Your task to perform on an android device: turn off location history Image 0: 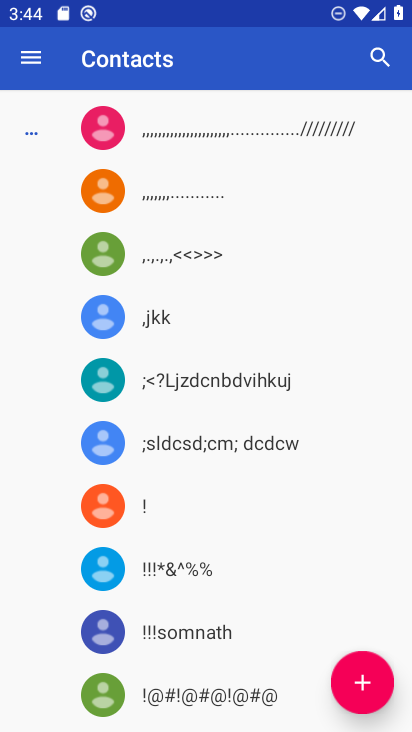
Step 0: press back button
Your task to perform on an android device: turn off location history Image 1: 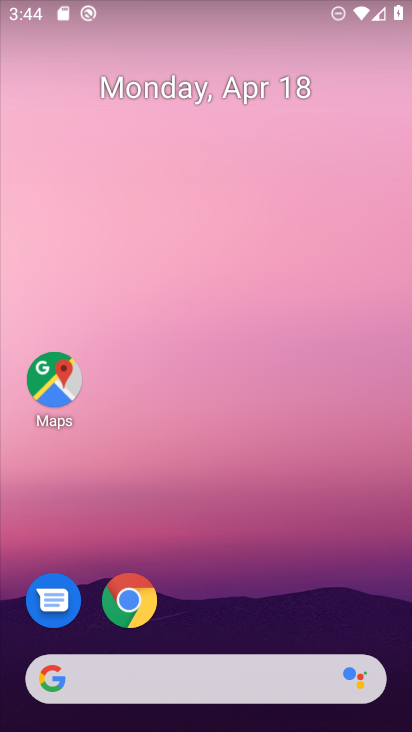
Step 1: drag from (272, 707) to (240, 229)
Your task to perform on an android device: turn off location history Image 2: 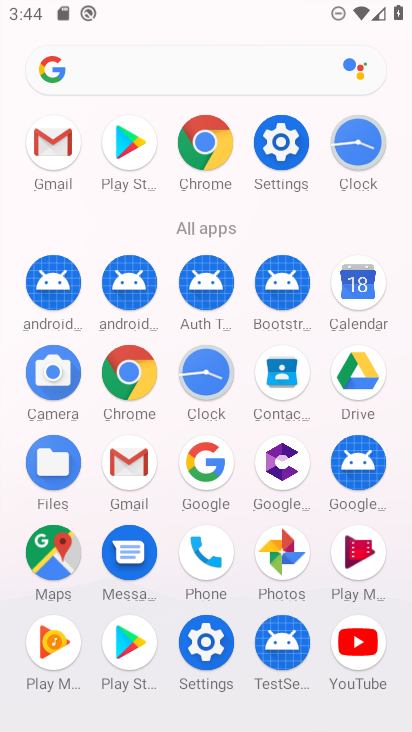
Step 2: click (200, 654)
Your task to perform on an android device: turn off location history Image 3: 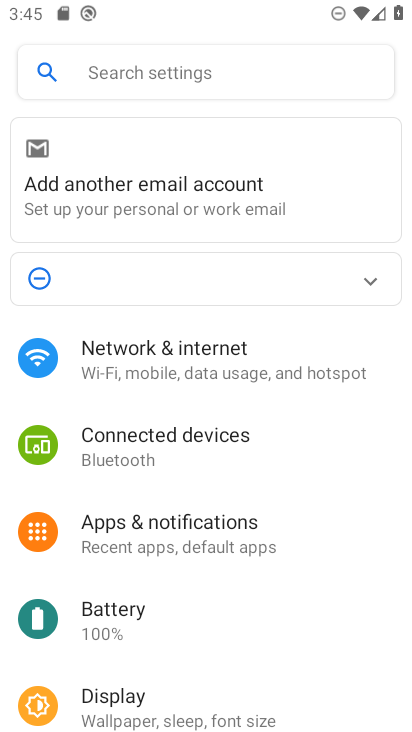
Step 3: click (183, 73)
Your task to perform on an android device: turn off location history Image 4: 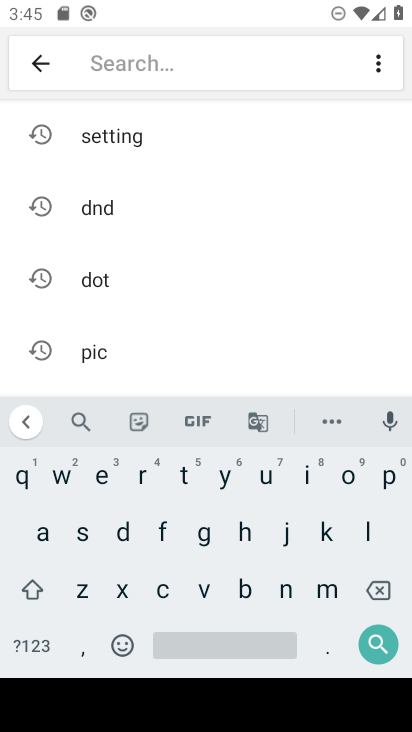
Step 4: click (361, 530)
Your task to perform on an android device: turn off location history Image 5: 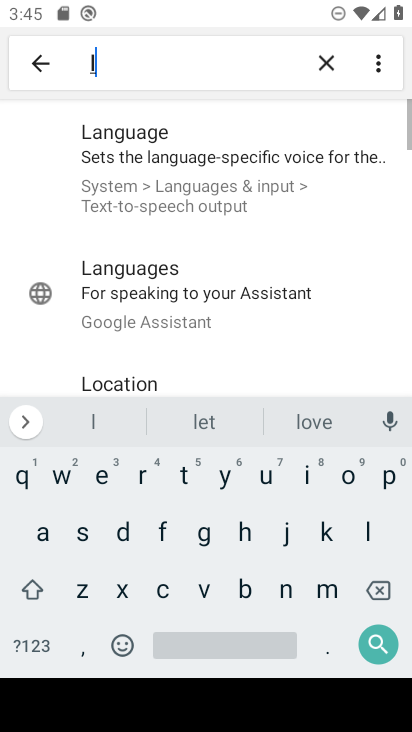
Step 5: click (351, 475)
Your task to perform on an android device: turn off location history Image 6: 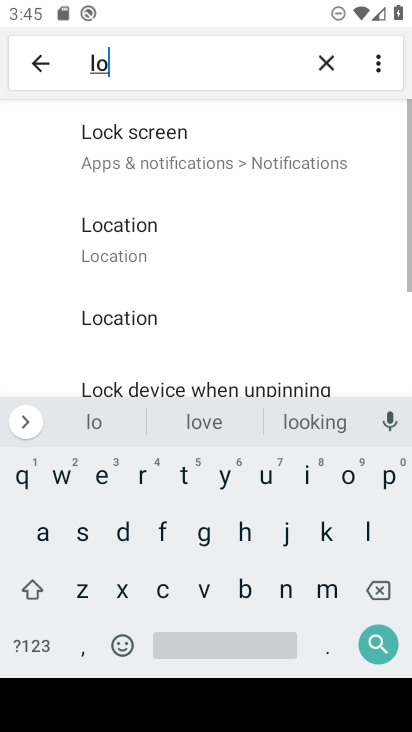
Step 6: click (158, 593)
Your task to perform on an android device: turn off location history Image 7: 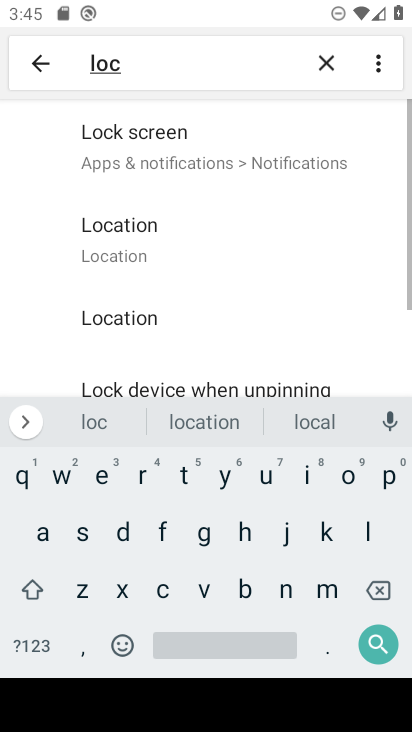
Step 7: click (40, 524)
Your task to perform on an android device: turn off location history Image 8: 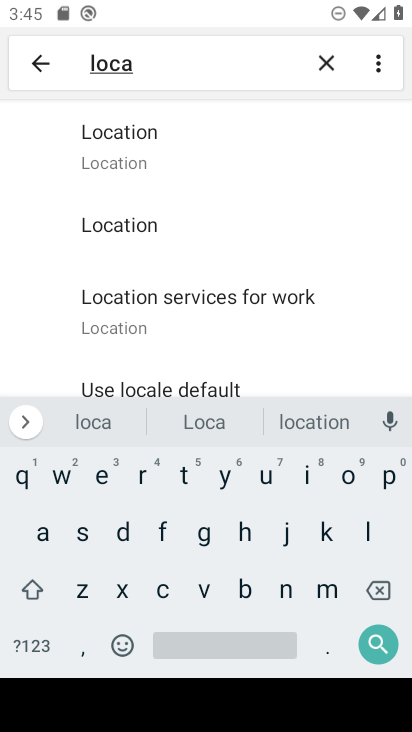
Step 8: click (168, 171)
Your task to perform on an android device: turn off location history Image 9: 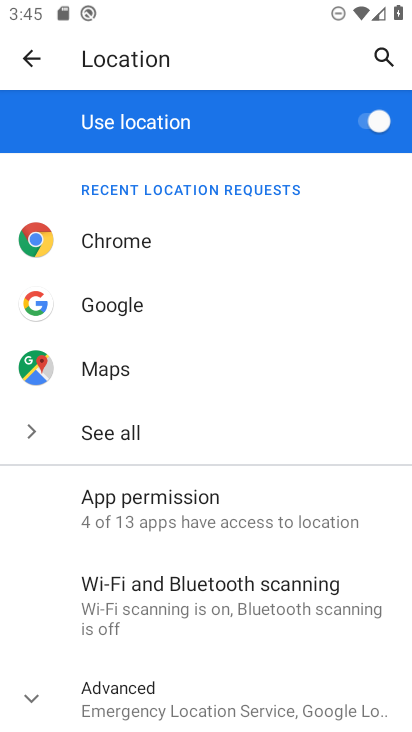
Step 9: click (133, 704)
Your task to perform on an android device: turn off location history Image 10: 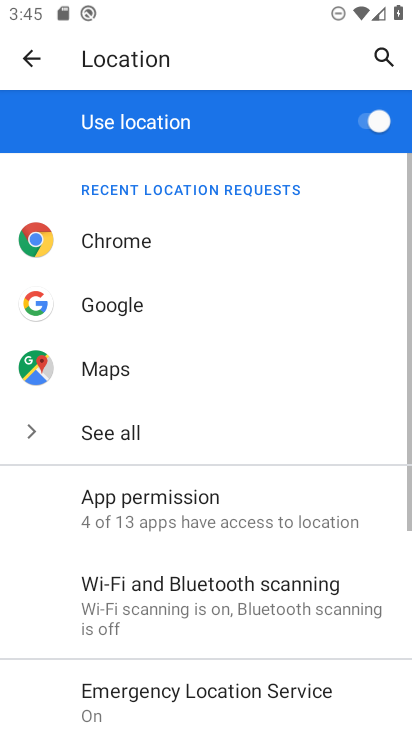
Step 10: drag from (134, 701) to (138, 358)
Your task to perform on an android device: turn off location history Image 11: 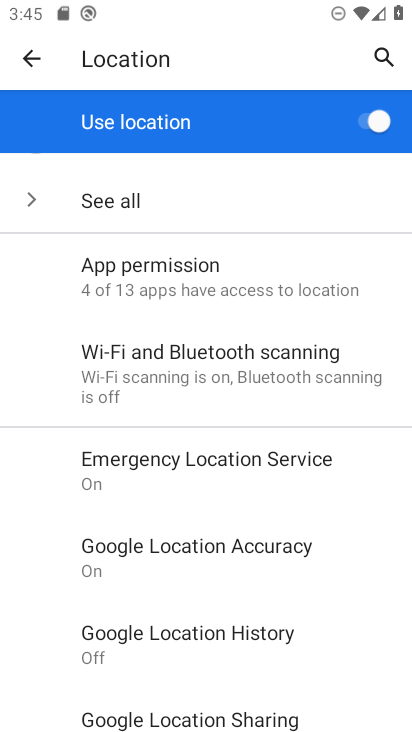
Step 11: click (169, 630)
Your task to perform on an android device: turn off location history Image 12: 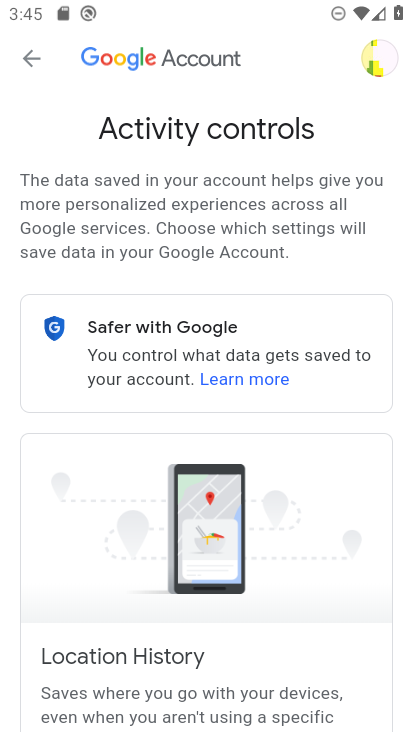
Step 12: drag from (169, 630) to (153, 279)
Your task to perform on an android device: turn off location history Image 13: 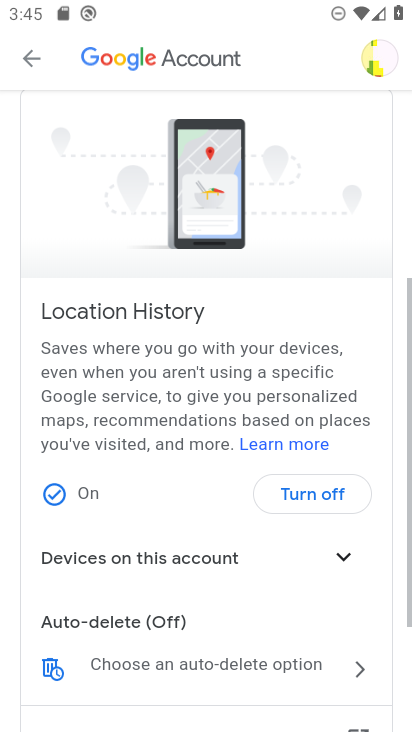
Step 13: drag from (249, 496) to (262, 398)
Your task to perform on an android device: turn off location history Image 14: 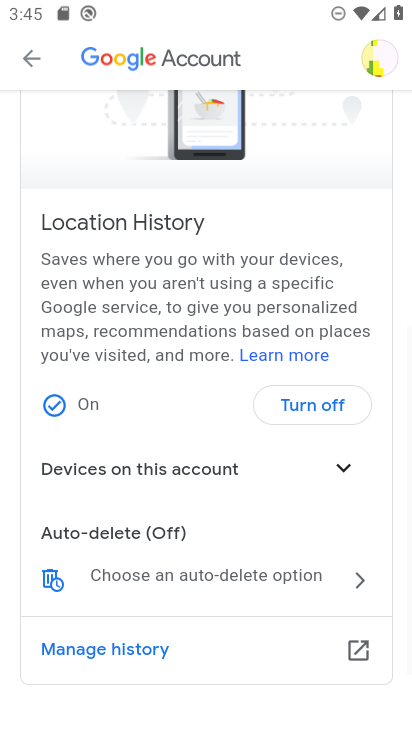
Step 14: click (305, 495)
Your task to perform on an android device: turn off location history Image 15: 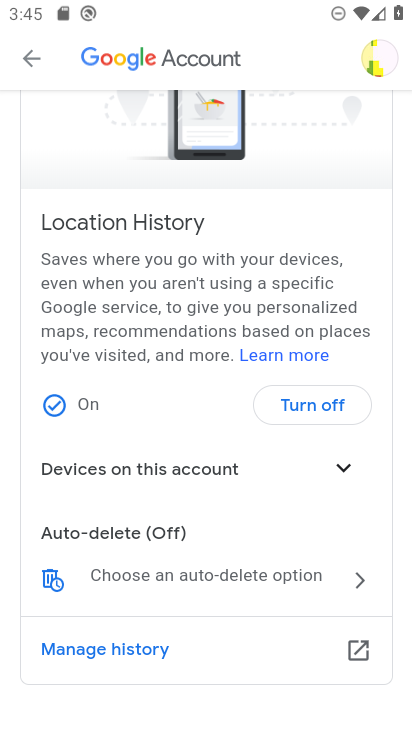
Step 15: click (323, 400)
Your task to perform on an android device: turn off location history Image 16: 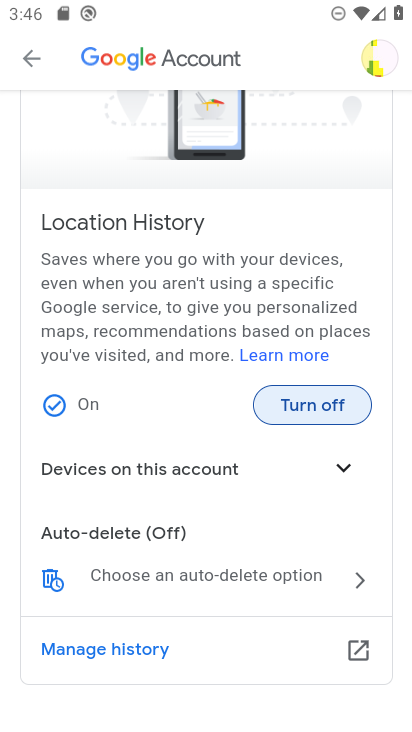
Step 16: task complete